Your task to perform on an android device: turn on bluetooth scan Image 0: 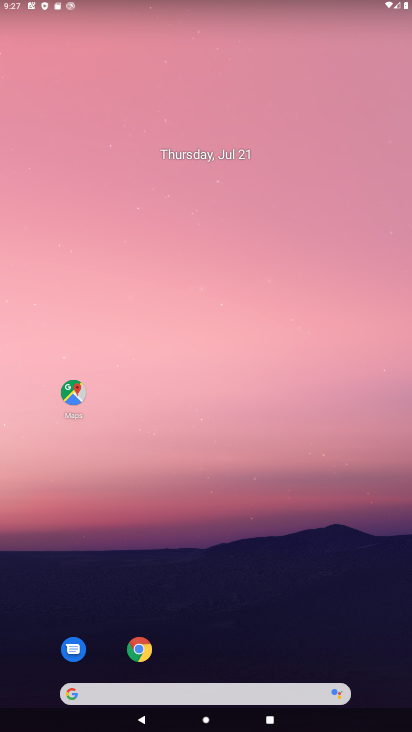
Step 0: drag from (241, 639) to (254, 113)
Your task to perform on an android device: turn on bluetooth scan Image 1: 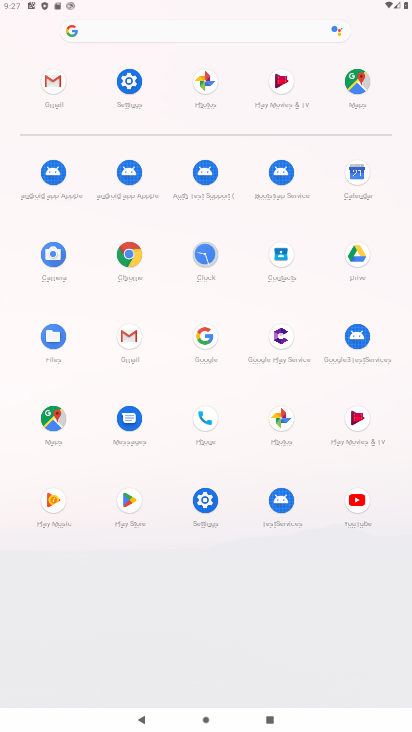
Step 1: click (211, 499)
Your task to perform on an android device: turn on bluetooth scan Image 2: 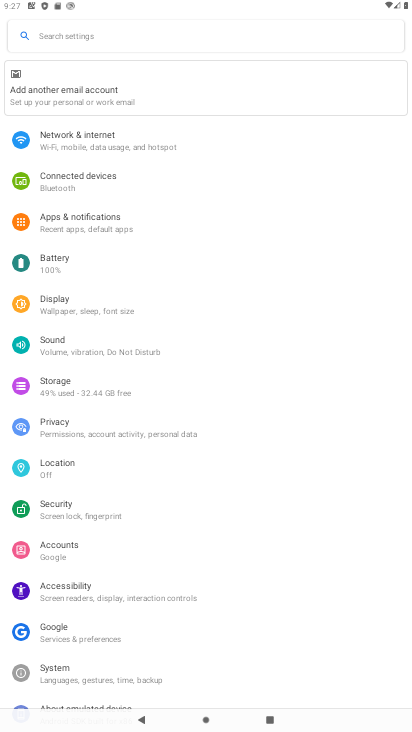
Step 2: click (84, 459)
Your task to perform on an android device: turn on bluetooth scan Image 3: 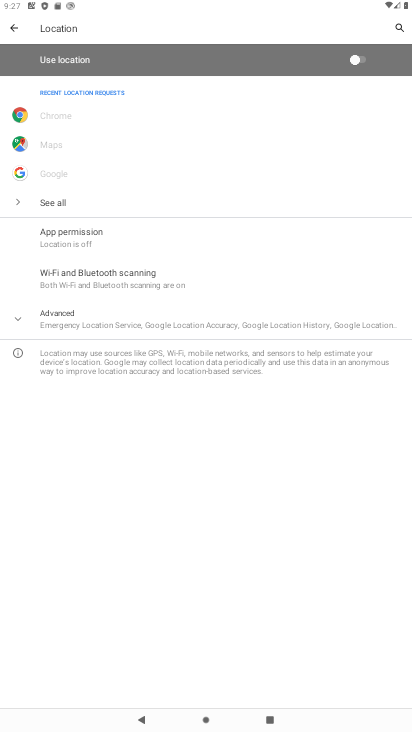
Step 3: click (127, 278)
Your task to perform on an android device: turn on bluetooth scan Image 4: 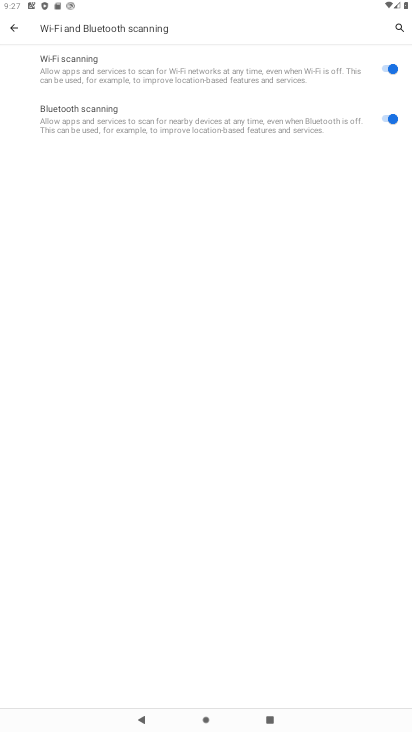
Step 4: task complete